Your task to perform on an android device: Search for "amazon basics triple a" on target.com, select the first entry, add it to the cart, then select checkout. Image 0: 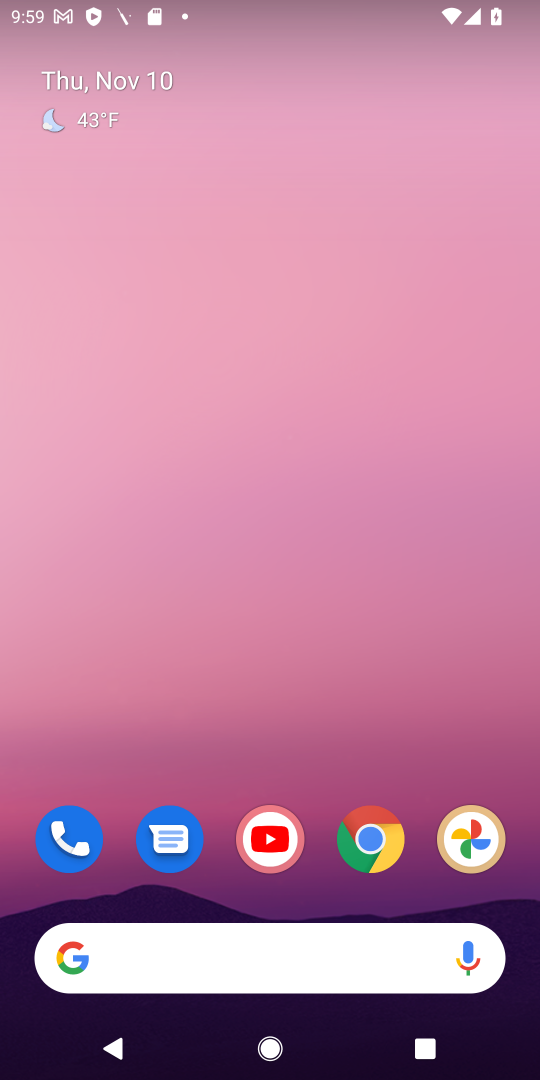
Step 0: click (388, 838)
Your task to perform on an android device: Search for "amazon basics triple a" on target.com, select the first entry, add it to the cart, then select checkout. Image 1: 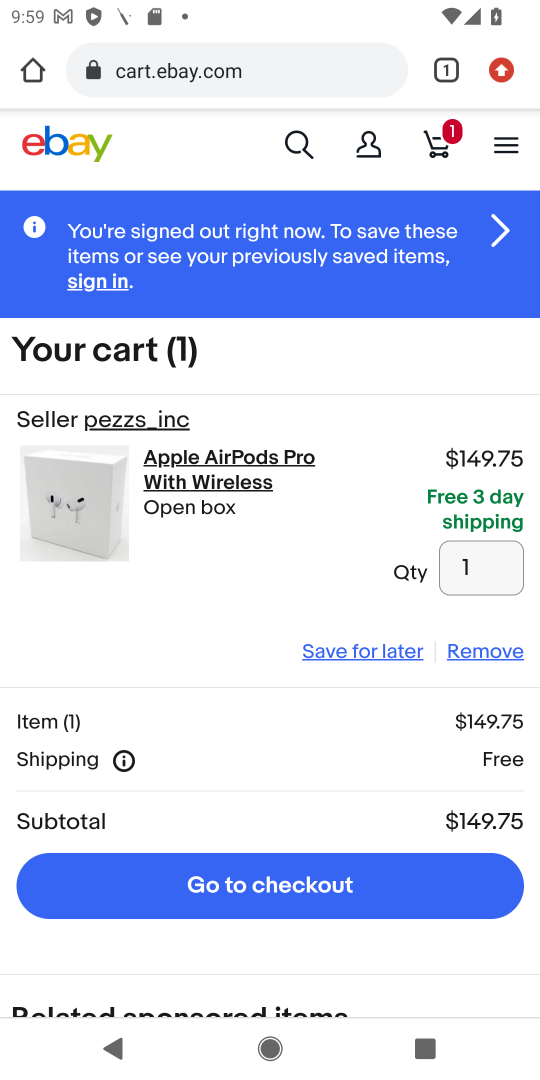
Step 1: click (289, 69)
Your task to perform on an android device: Search for "amazon basics triple a" on target.com, select the first entry, add it to the cart, then select checkout. Image 2: 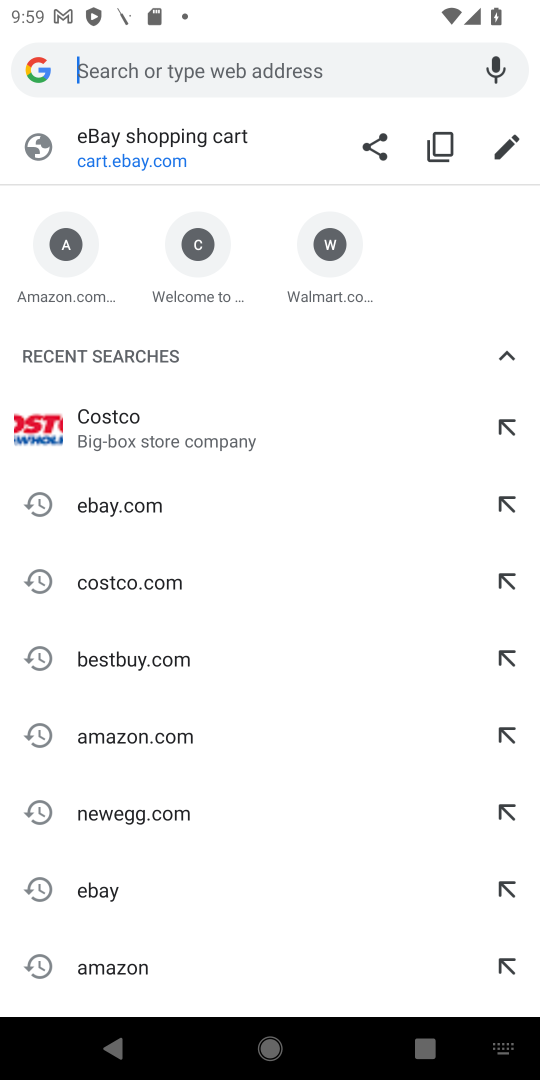
Step 2: type "target.com"
Your task to perform on an android device: Search for "amazon basics triple a" on target.com, select the first entry, add it to the cart, then select checkout. Image 3: 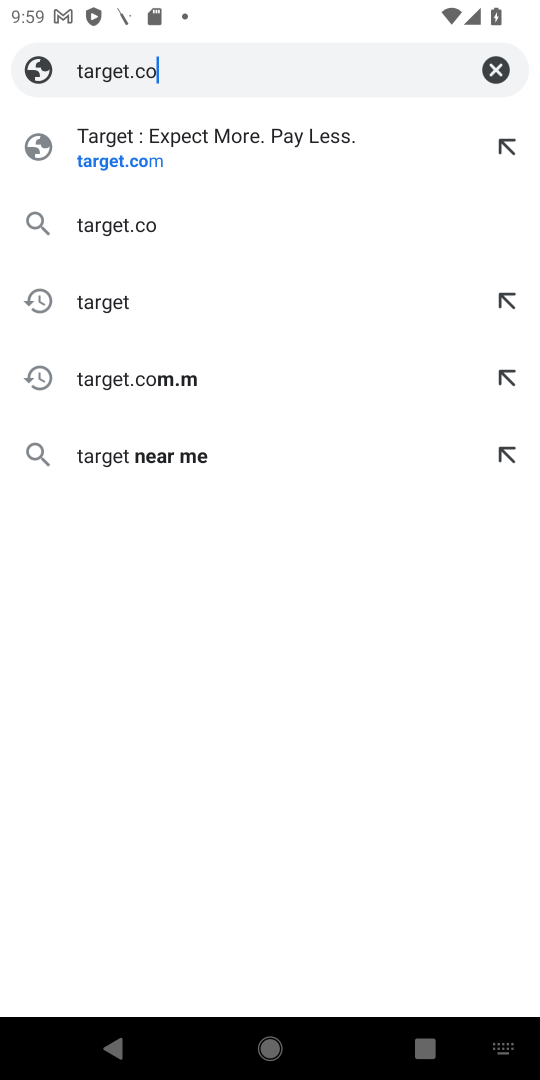
Step 3: press enter
Your task to perform on an android device: Search for "amazon basics triple a" on target.com, select the first entry, add it to the cart, then select checkout. Image 4: 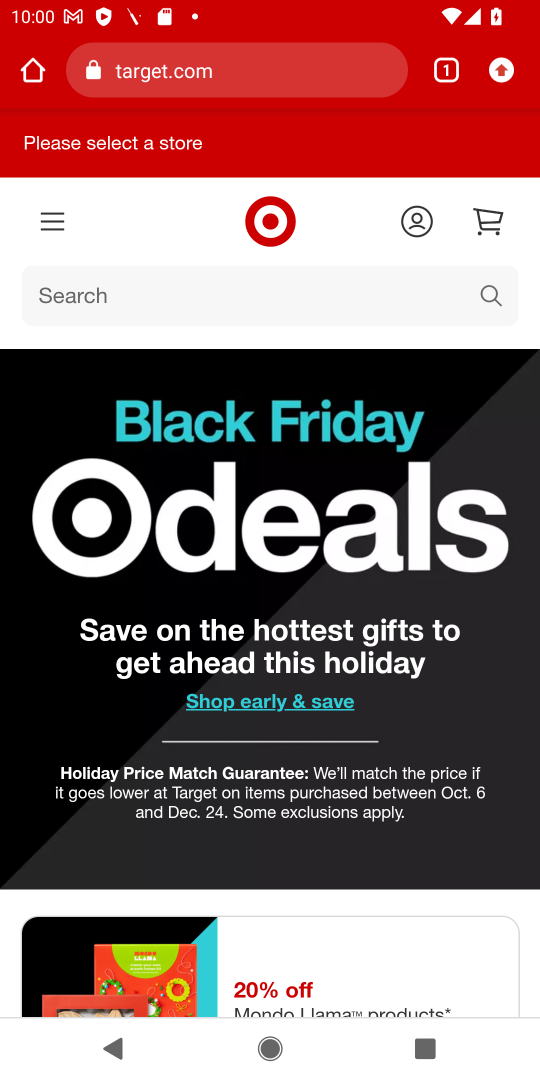
Step 4: click (492, 284)
Your task to perform on an android device: Search for "amazon basics triple a" on target.com, select the first entry, add it to the cart, then select checkout. Image 5: 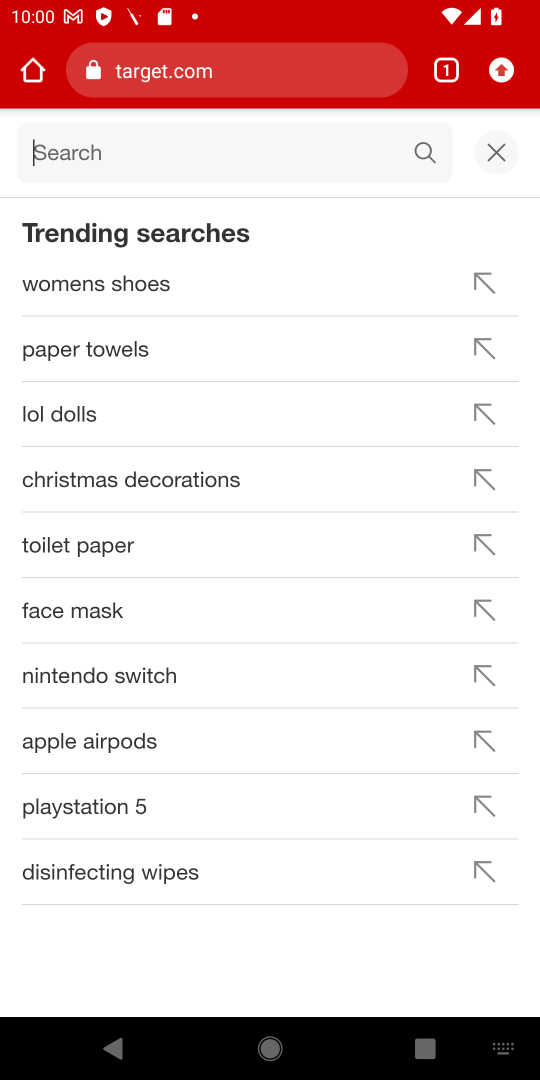
Step 5: type "amazon basics triple a"
Your task to perform on an android device: Search for "amazon basics triple a" on target.com, select the first entry, add it to the cart, then select checkout. Image 6: 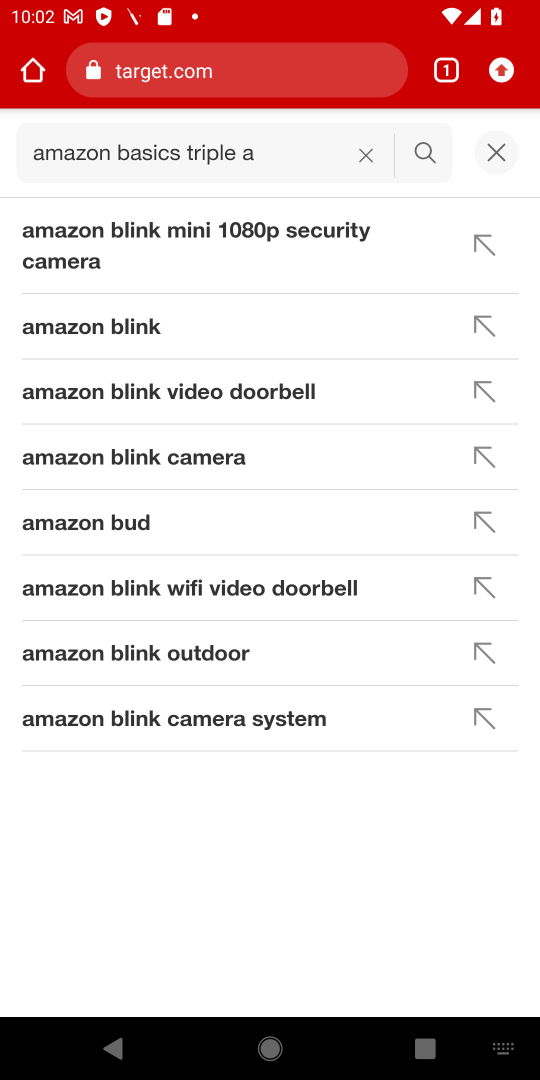
Step 6: click (287, 150)
Your task to perform on an android device: Search for "amazon basics triple a" on target.com, select the first entry, add it to the cart, then select checkout. Image 7: 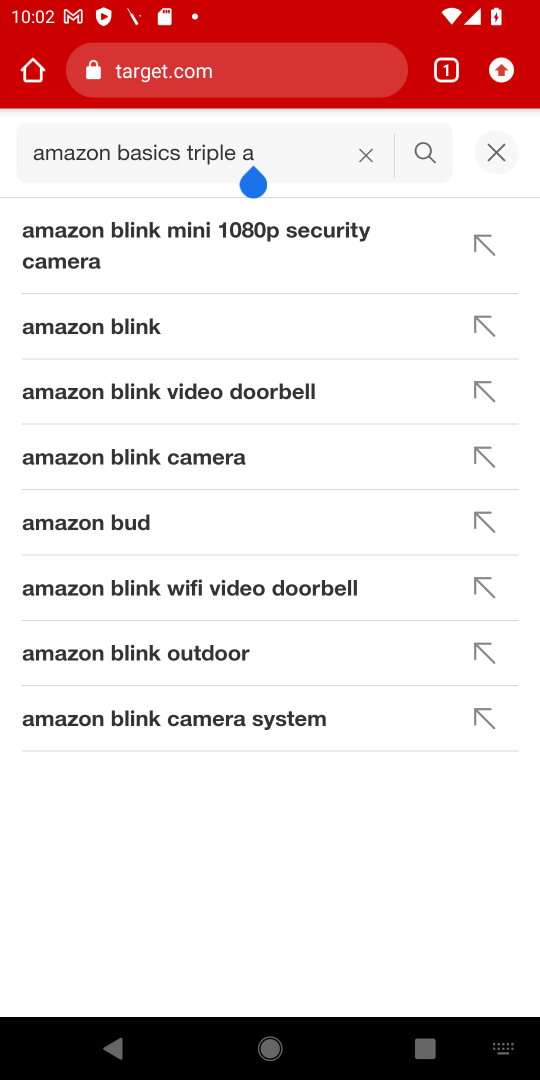
Step 7: click (381, 910)
Your task to perform on an android device: Search for "amazon basics triple a" on target.com, select the first entry, add it to the cart, then select checkout. Image 8: 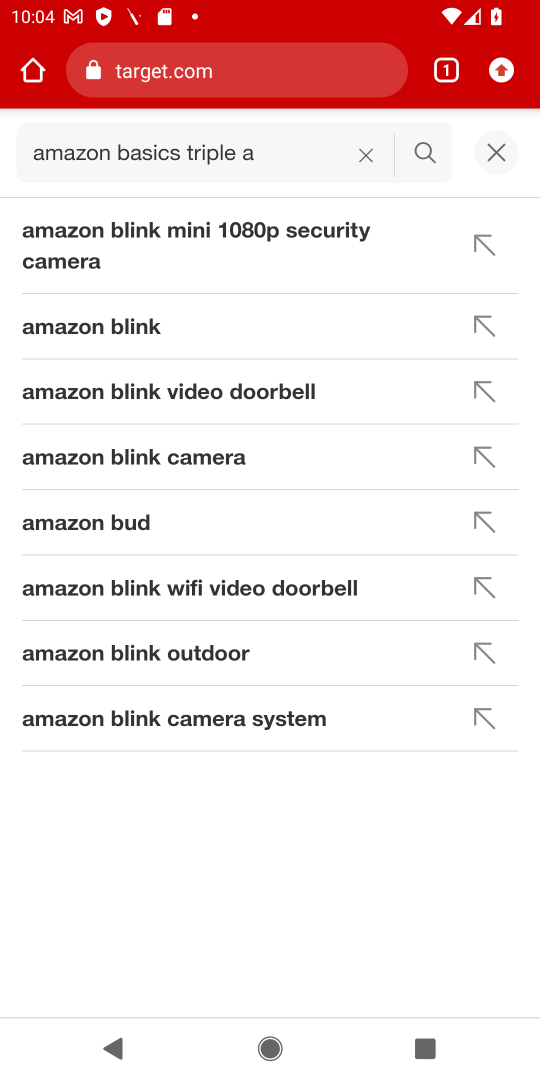
Step 8: click (379, 888)
Your task to perform on an android device: Search for "amazon basics triple a" on target.com, select the first entry, add it to the cart, then select checkout. Image 9: 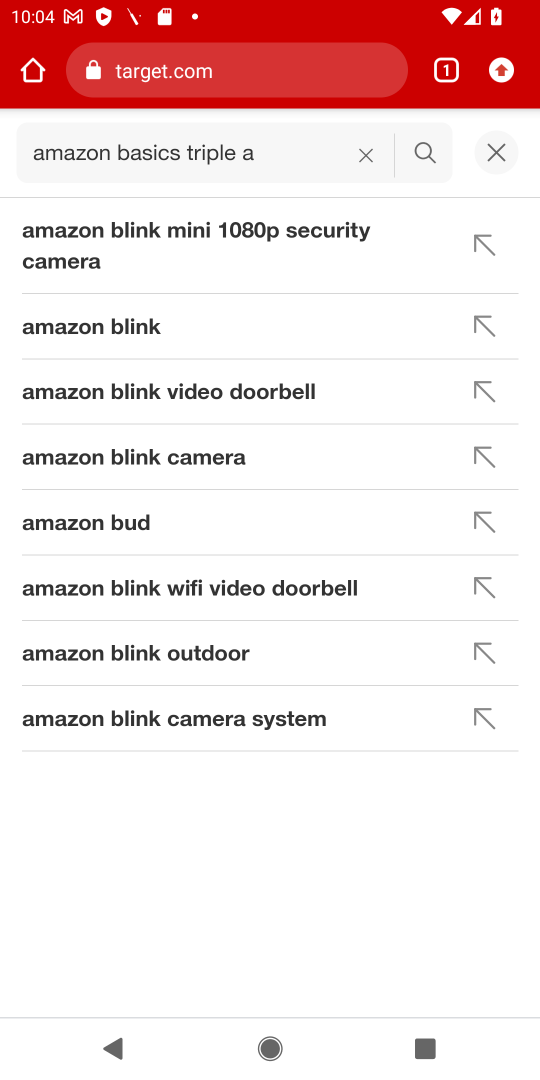
Step 9: task complete